Your task to perform on an android device: find photos in the google photos app Image 0: 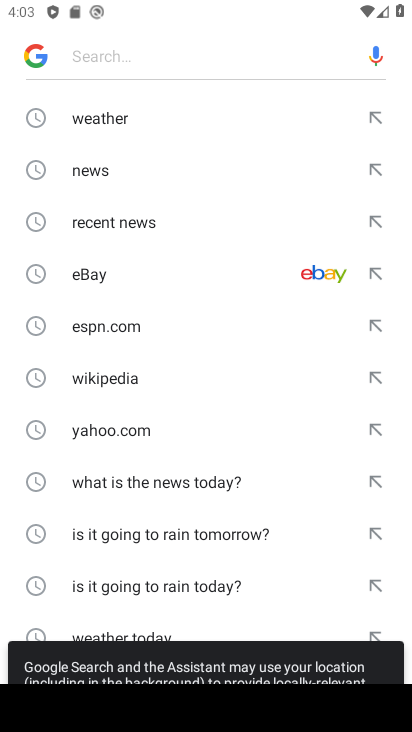
Step 0: press home button
Your task to perform on an android device: find photos in the google photos app Image 1: 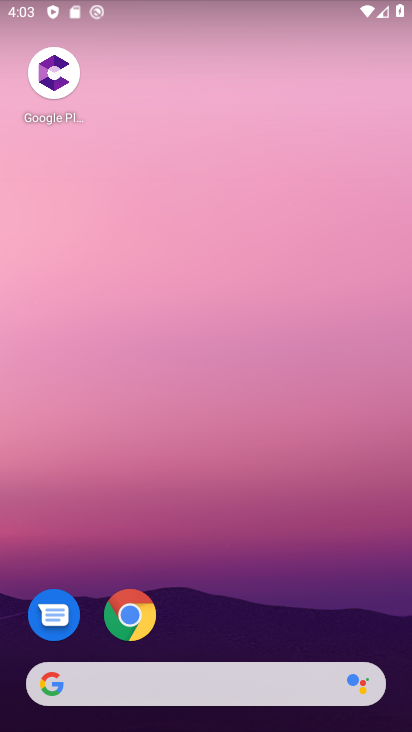
Step 1: drag from (249, 550) to (310, 83)
Your task to perform on an android device: find photos in the google photos app Image 2: 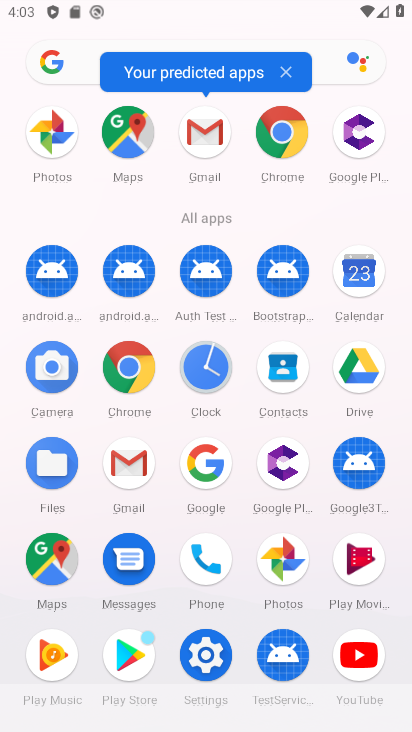
Step 2: click (59, 125)
Your task to perform on an android device: find photos in the google photos app Image 3: 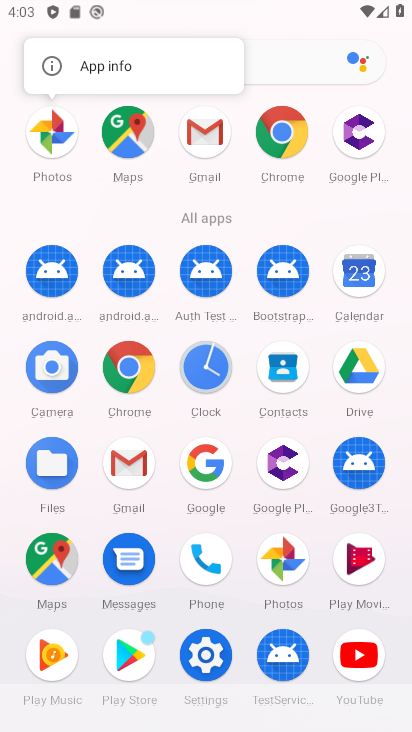
Step 3: click (57, 136)
Your task to perform on an android device: find photos in the google photos app Image 4: 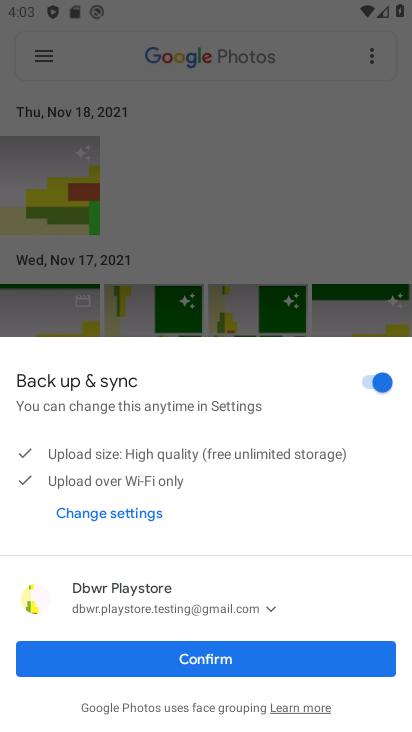
Step 4: click (219, 658)
Your task to perform on an android device: find photos in the google photos app Image 5: 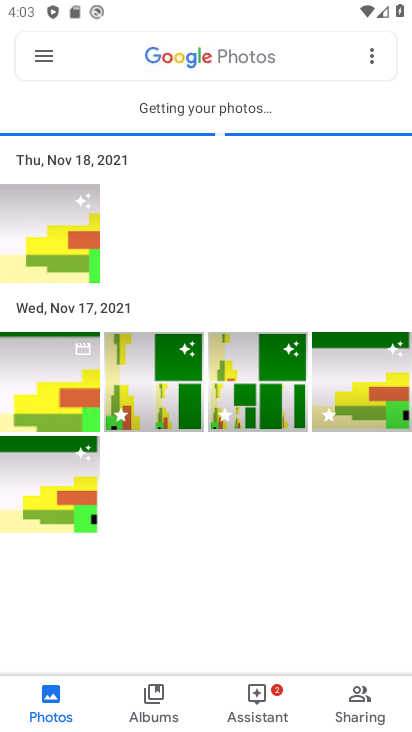
Step 5: click (57, 697)
Your task to perform on an android device: find photos in the google photos app Image 6: 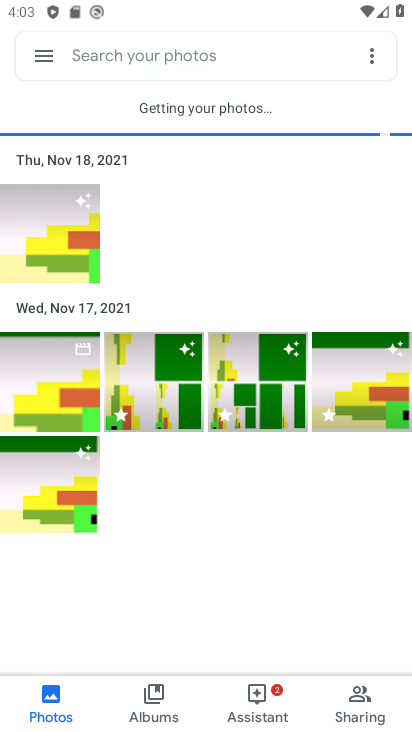
Step 6: task complete